Your task to perform on an android device: Do I have any events today? Image 0: 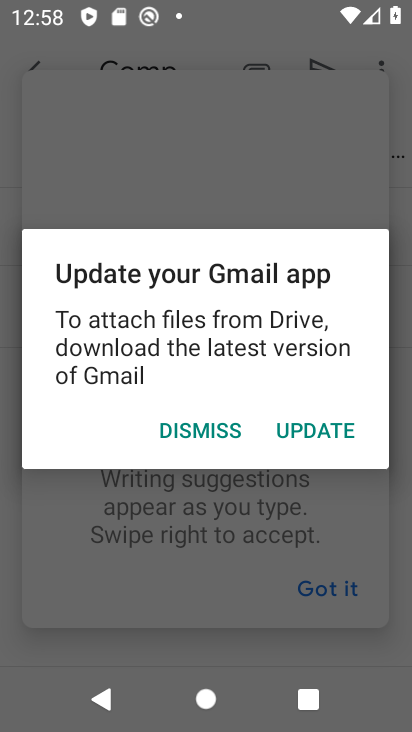
Step 0: press home button
Your task to perform on an android device: Do I have any events today? Image 1: 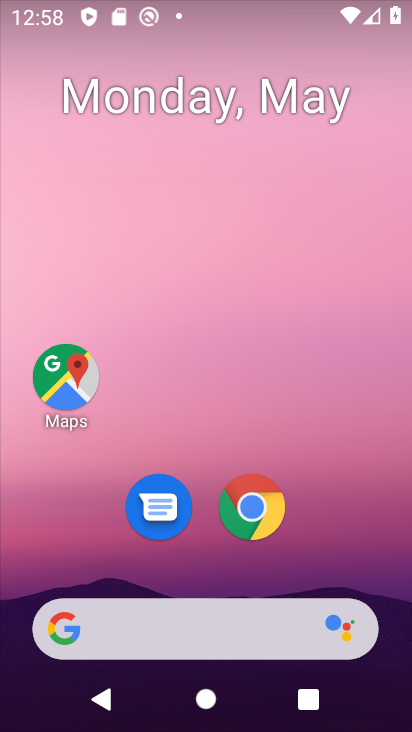
Step 1: click (254, 503)
Your task to perform on an android device: Do I have any events today? Image 2: 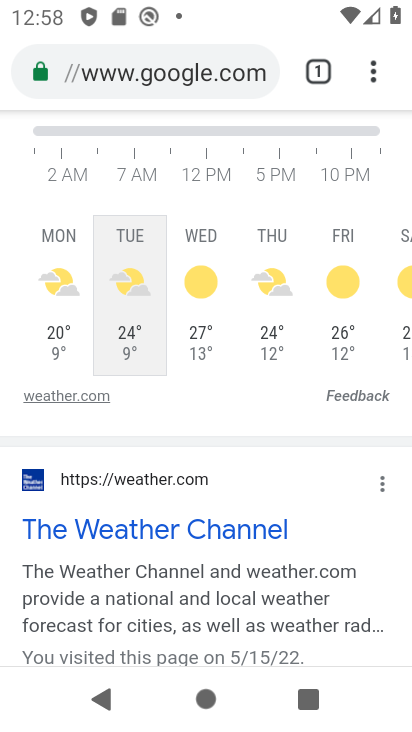
Step 2: press home button
Your task to perform on an android device: Do I have any events today? Image 3: 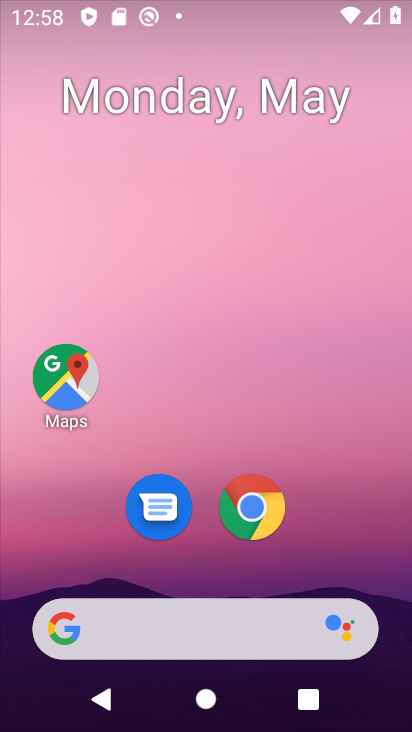
Step 3: drag from (354, 451) to (354, 0)
Your task to perform on an android device: Do I have any events today? Image 4: 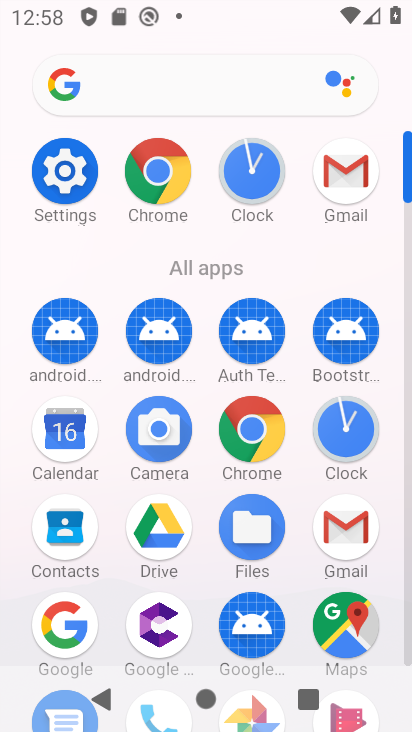
Step 4: drag from (285, 576) to (324, 227)
Your task to perform on an android device: Do I have any events today? Image 5: 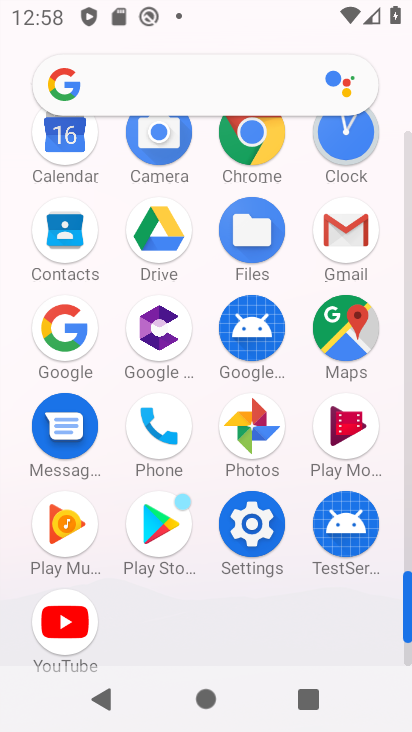
Step 5: drag from (293, 282) to (279, 561)
Your task to perform on an android device: Do I have any events today? Image 6: 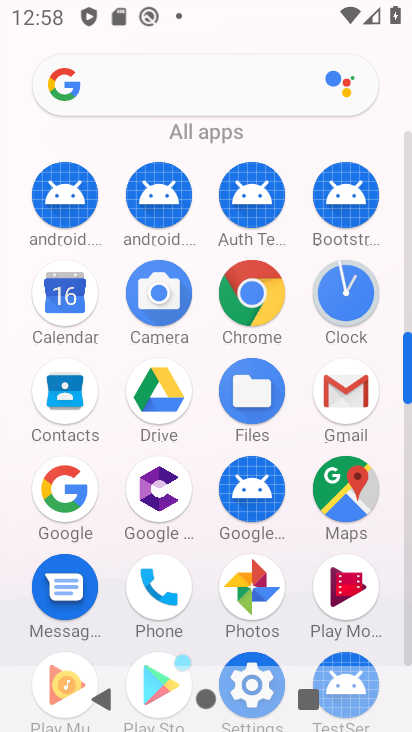
Step 6: click (79, 300)
Your task to perform on an android device: Do I have any events today? Image 7: 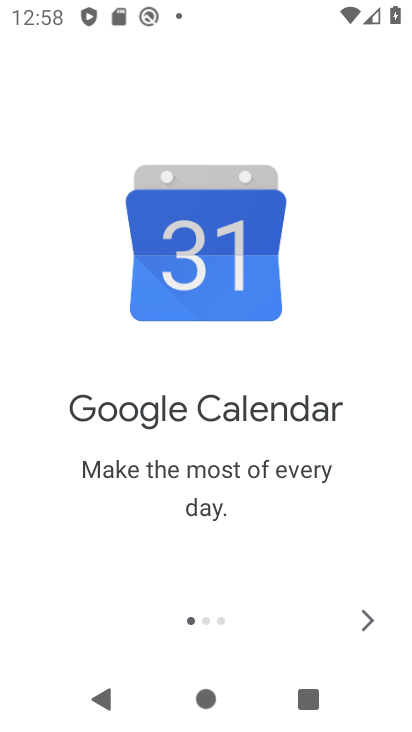
Step 7: click (375, 620)
Your task to perform on an android device: Do I have any events today? Image 8: 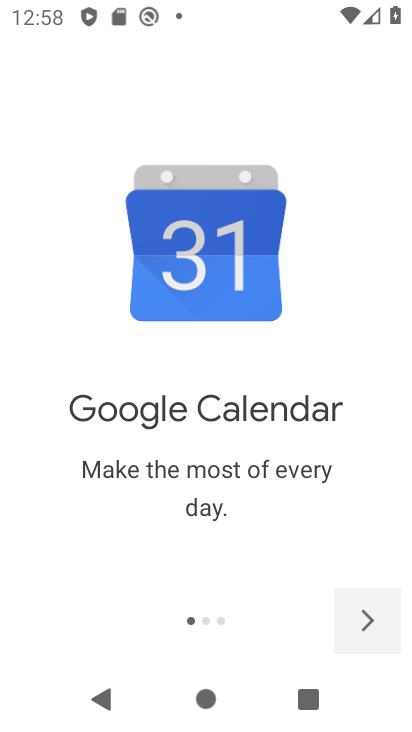
Step 8: click (374, 618)
Your task to perform on an android device: Do I have any events today? Image 9: 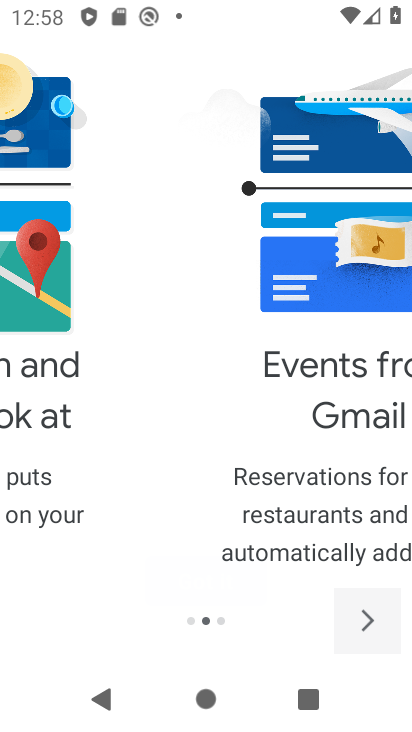
Step 9: click (374, 618)
Your task to perform on an android device: Do I have any events today? Image 10: 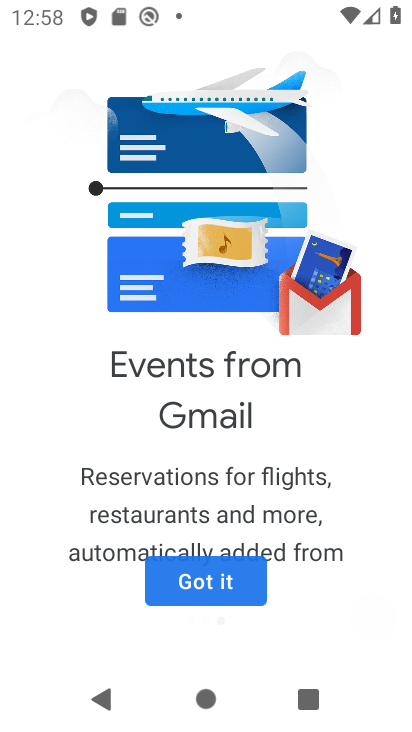
Step 10: click (373, 617)
Your task to perform on an android device: Do I have any events today? Image 11: 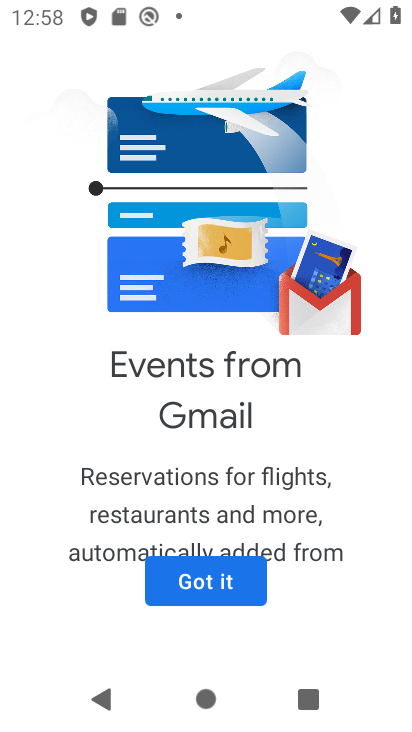
Step 11: click (220, 570)
Your task to perform on an android device: Do I have any events today? Image 12: 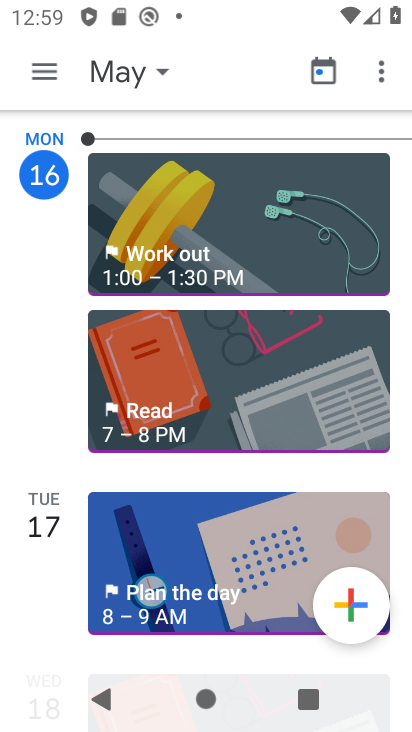
Step 12: task complete